Your task to perform on an android device: Go to internet settings Image 0: 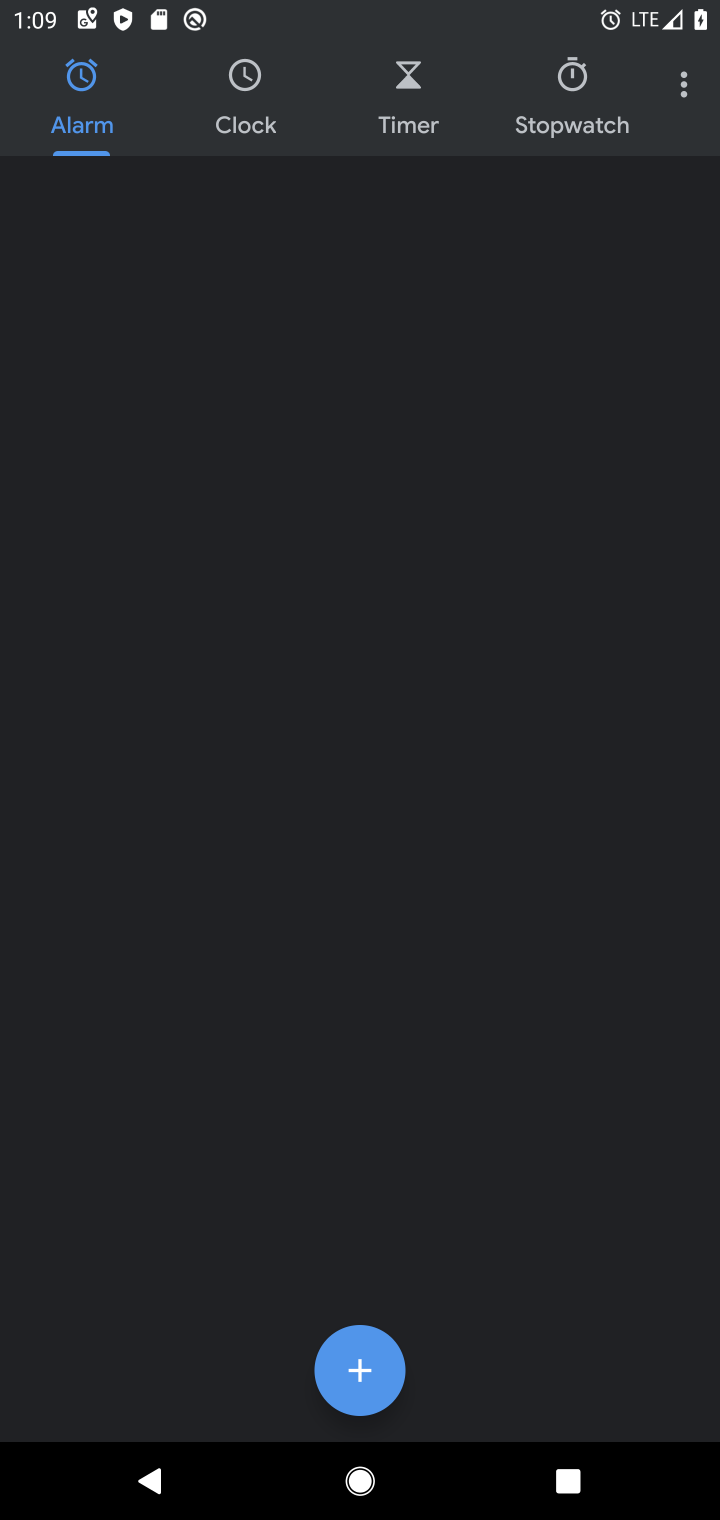
Step 0: press home button
Your task to perform on an android device: Go to internet settings Image 1: 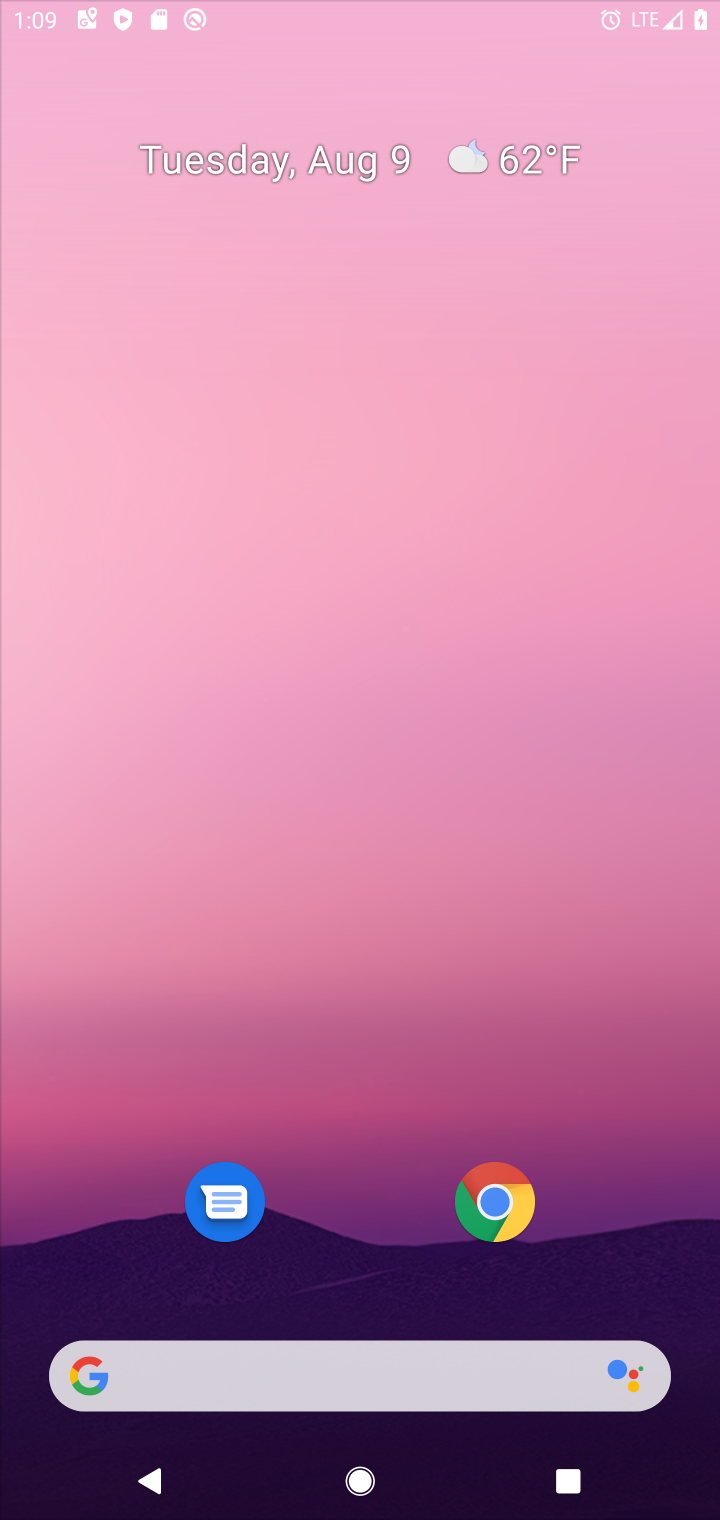
Step 1: press home button
Your task to perform on an android device: Go to internet settings Image 2: 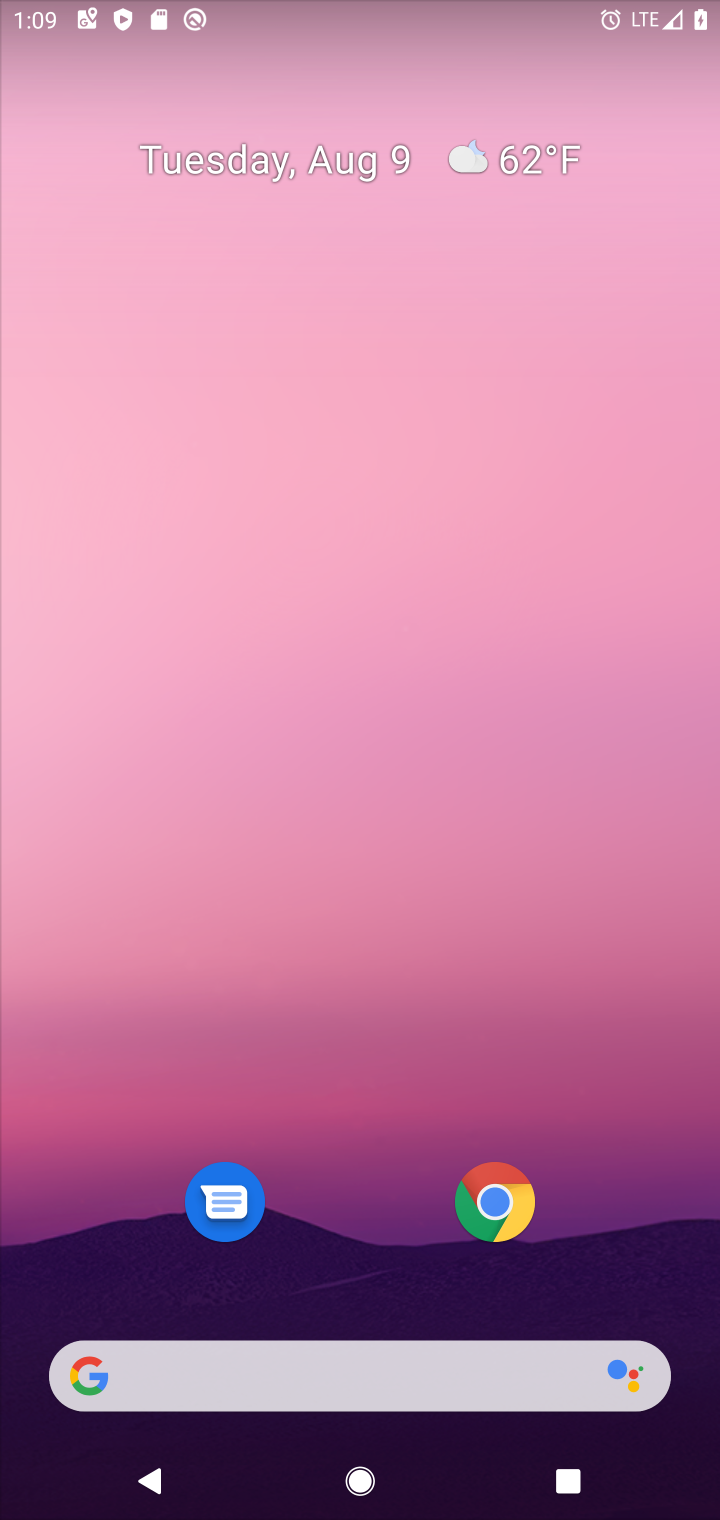
Step 2: drag from (436, 380) to (453, 6)
Your task to perform on an android device: Go to internet settings Image 3: 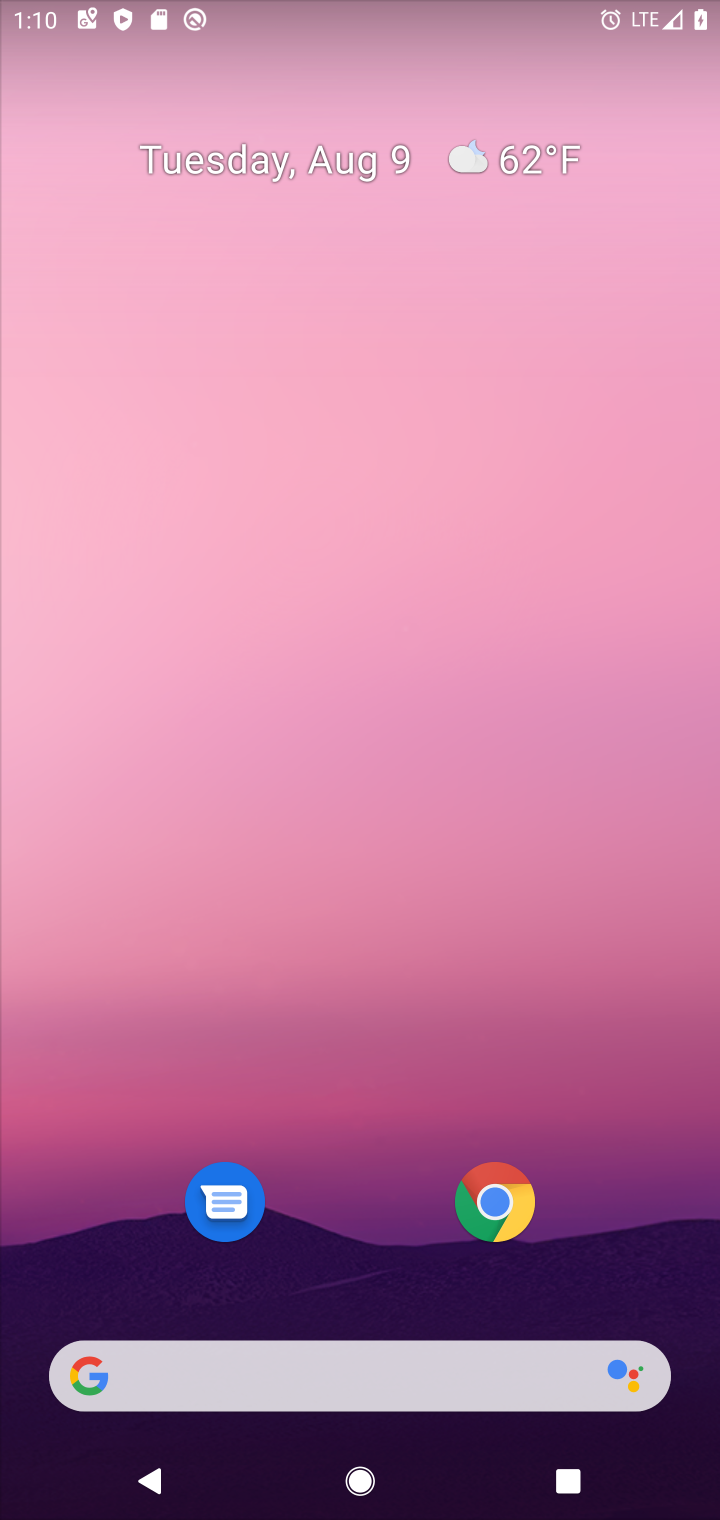
Step 3: drag from (413, 368) to (421, 106)
Your task to perform on an android device: Go to internet settings Image 4: 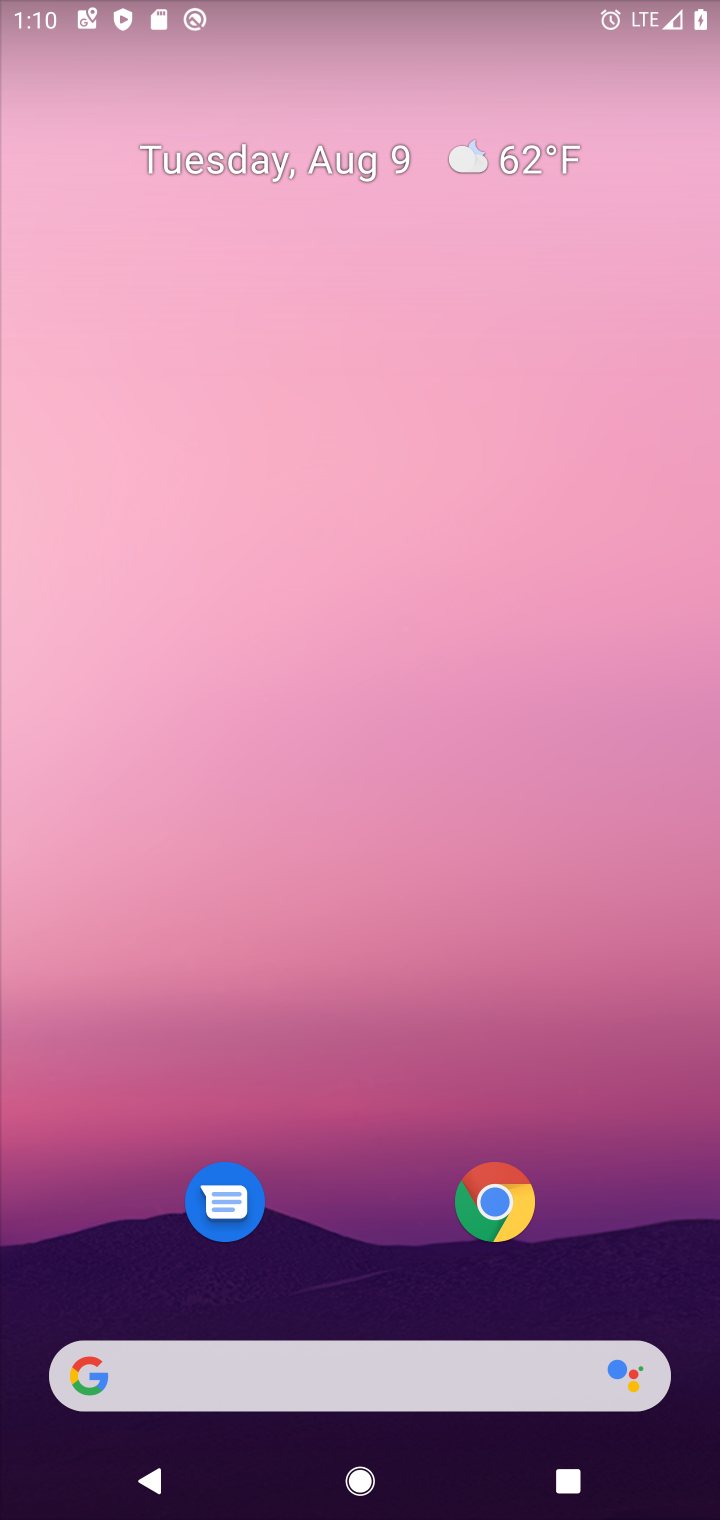
Step 4: drag from (346, 1112) to (407, 229)
Your task to perform on an android device: Go to internet settings Image 5: 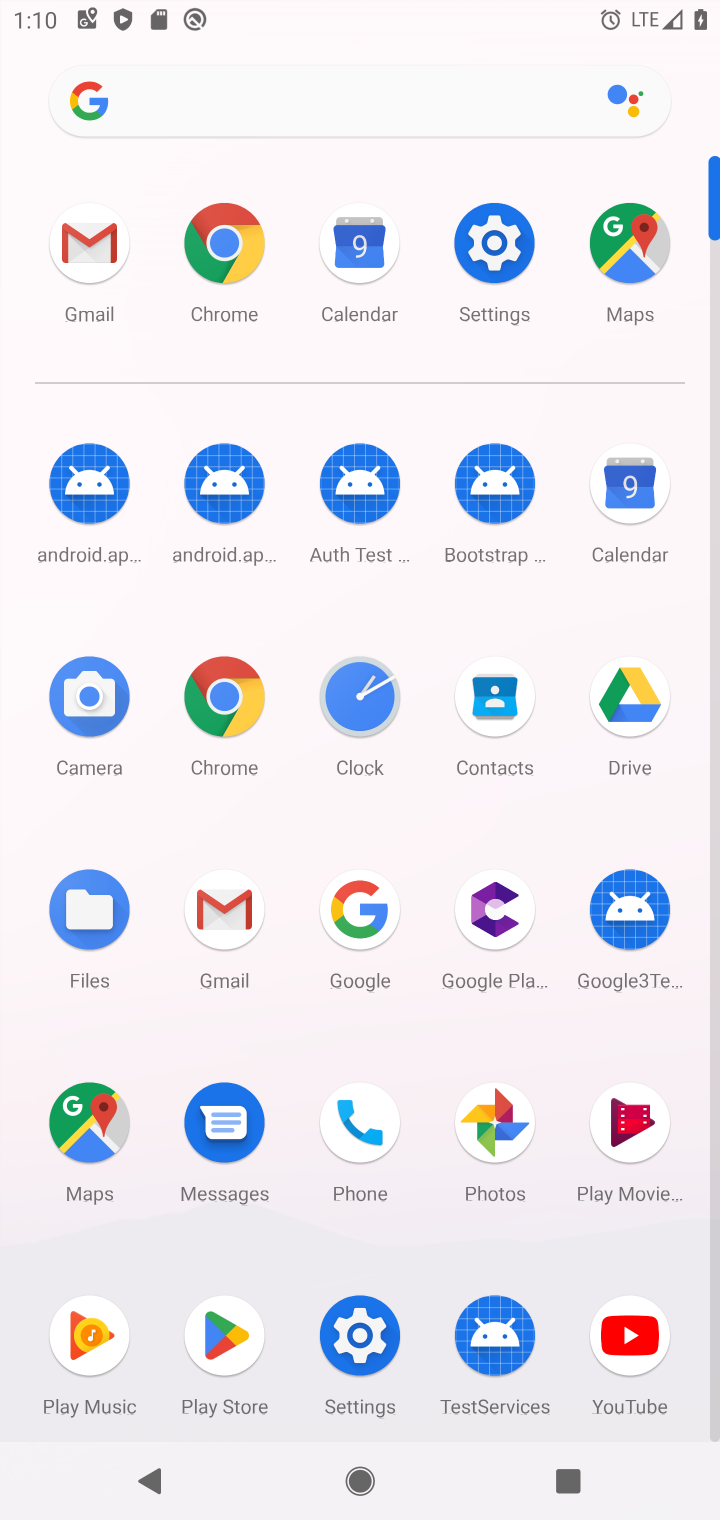
Step 5: click (490, 243)
Your task to perform on an android device: Go to internet settings Image 6: 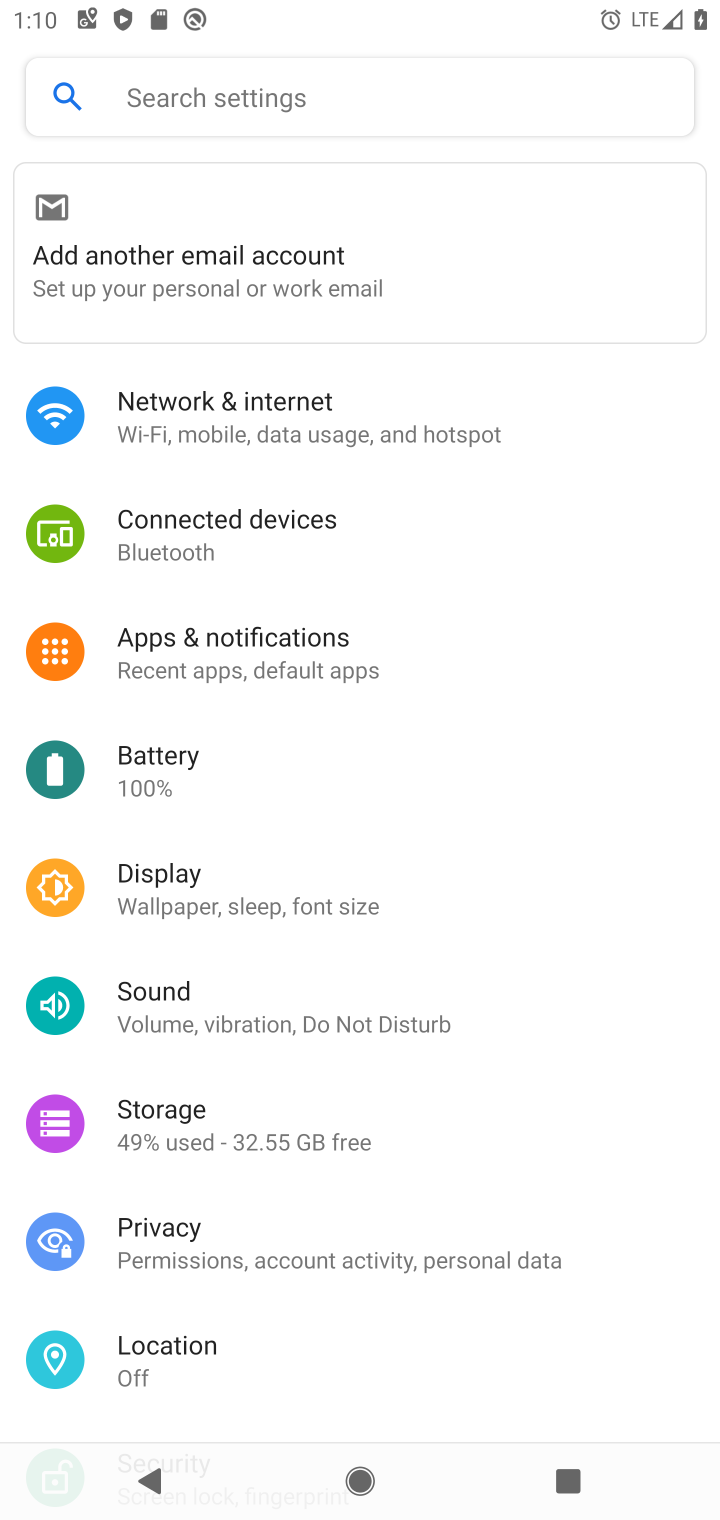
Step 6: click (242, 419)
Your task to perform on an android device: Go to internet settings Image 7: 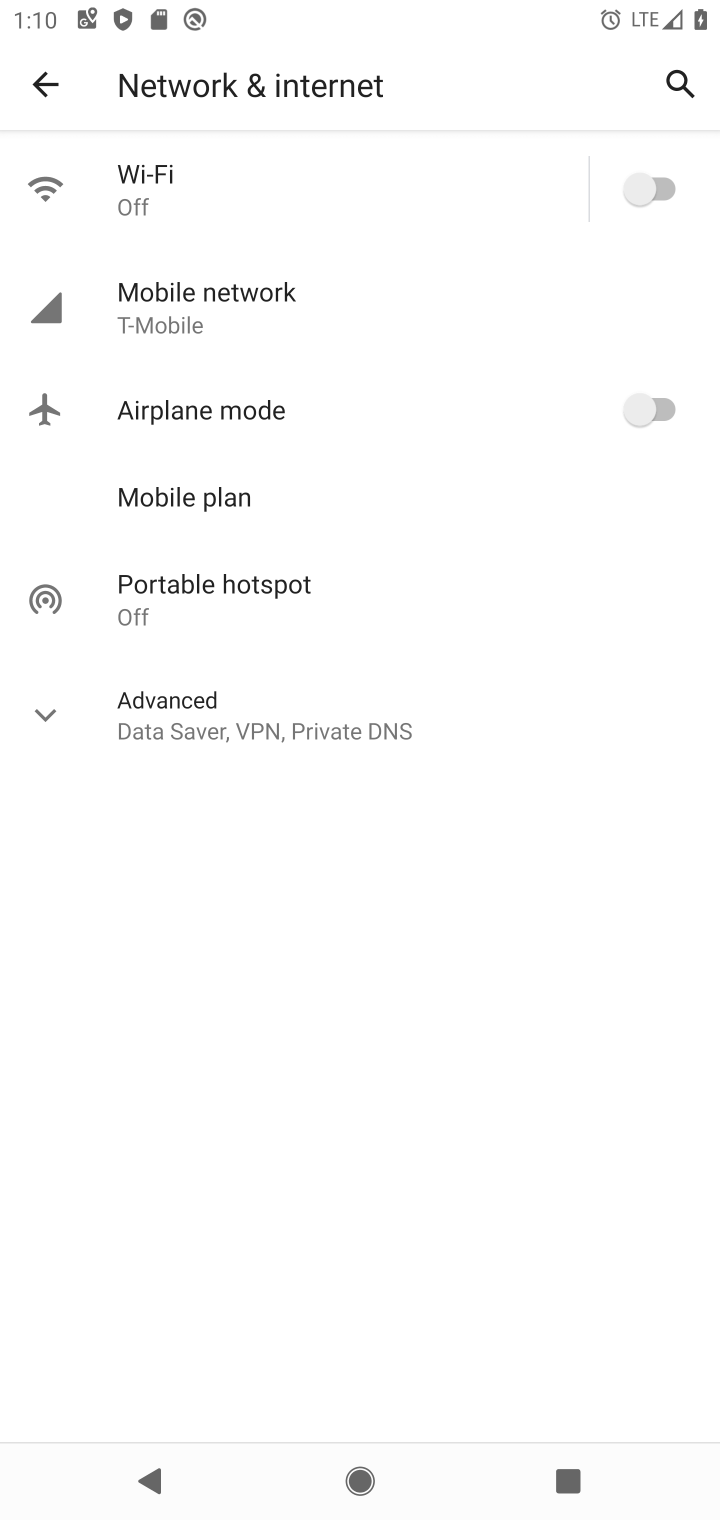
Step 7: task complete